Your task to perform on an android device: turn on notifications settings in the gmail app Image 0: 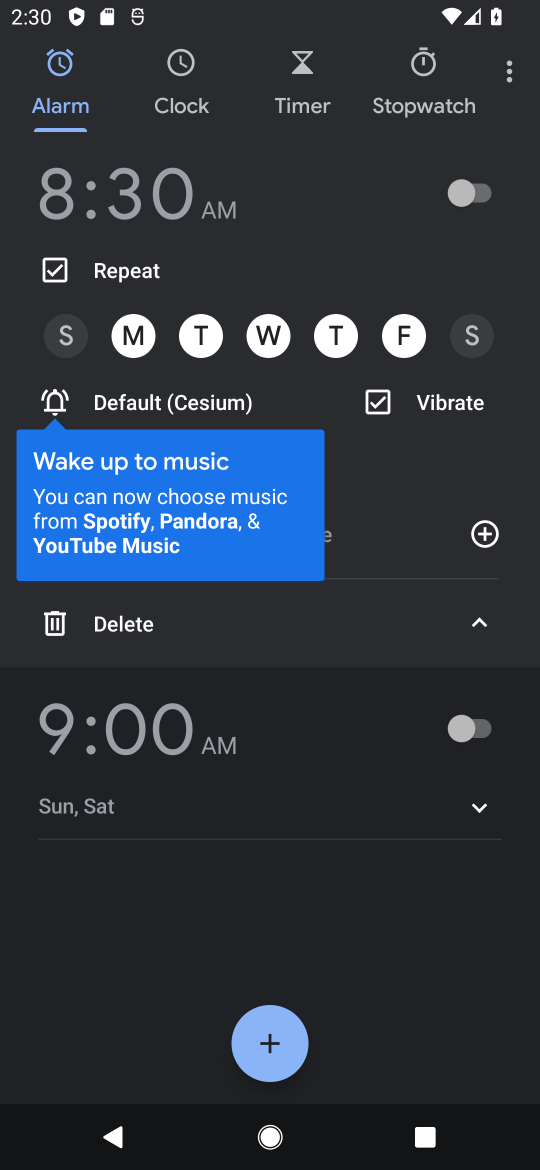
Step 0: task complete